Your task to perform on an android device: Open ESPN.com Image 0: 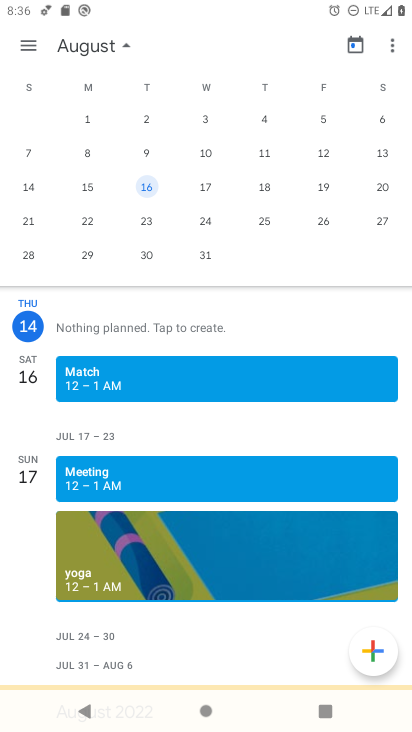
Step 0: press home button
Your task to perform on an android device: Open ESPN.com Image 1: 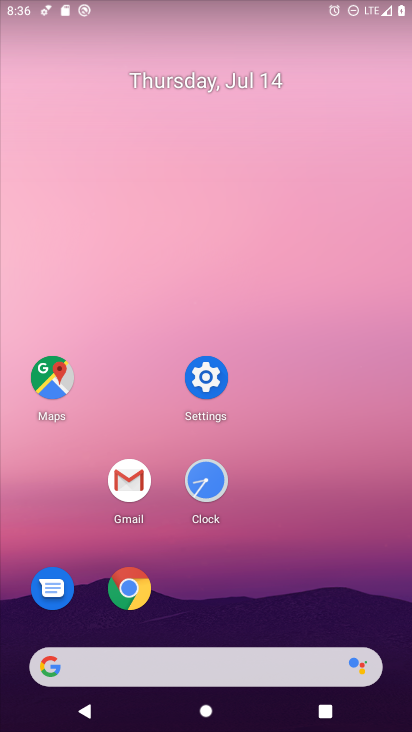
Step 1: click (132, 586)
Your task to perform on an android device: Open ESPN.com Image 2: 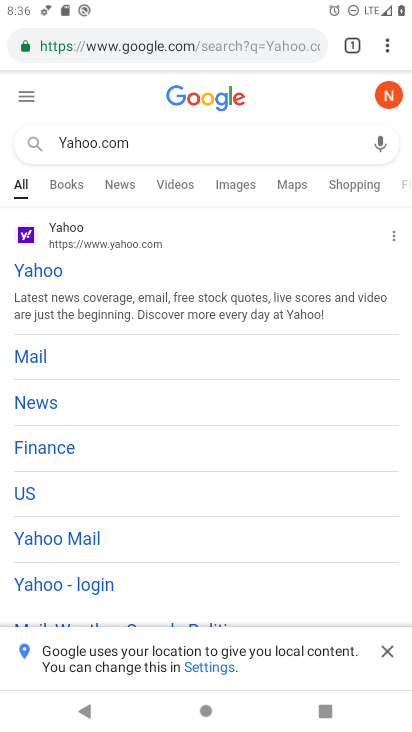
Step 2: click (295, 47)
Your task to perform on an android device: Open ESPN.com Image 3: 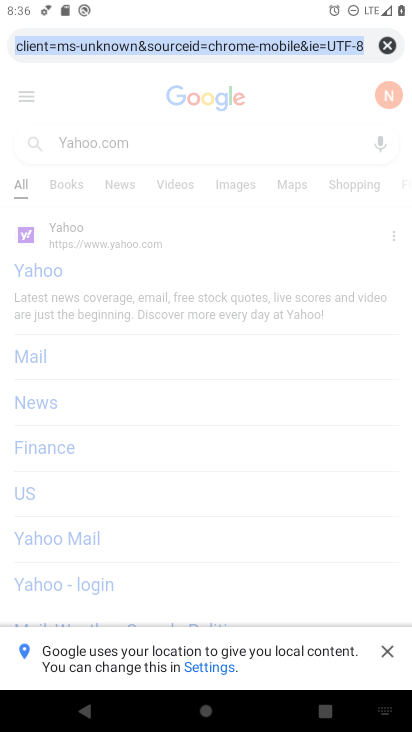
Step 3: click (388, 46)
Your task to perform on an android device: Open ESPN.com Image 4: 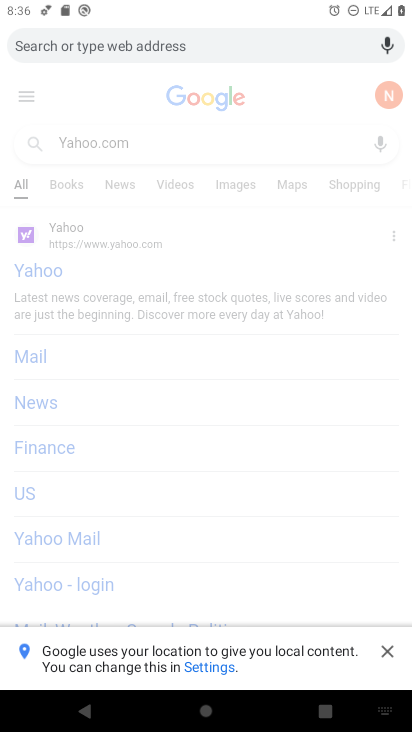
Step 4: type "ESPN.com"
Your task to perform on an android device: Open ESPN.com Image 5: 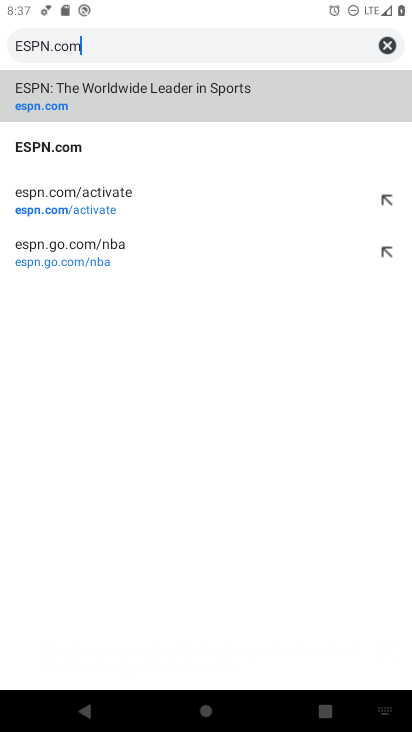
Step 5: click (58, 138)
Your task to perform on an android device: Open ESPN.com Image 6: 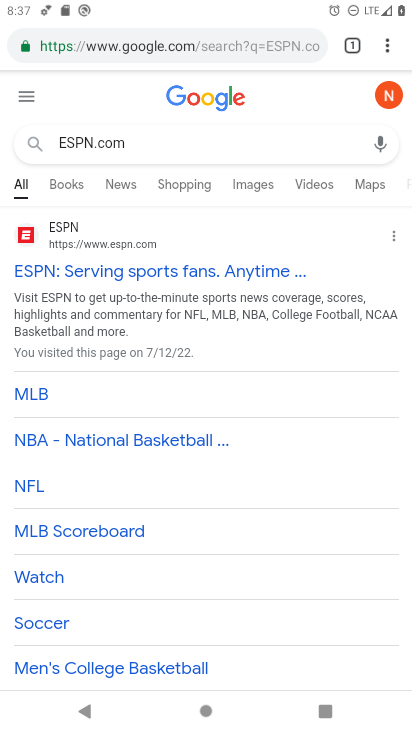
Step 6: task complete